Your task to perform on an android device: turn smart compose on in the gmail app Image 0: 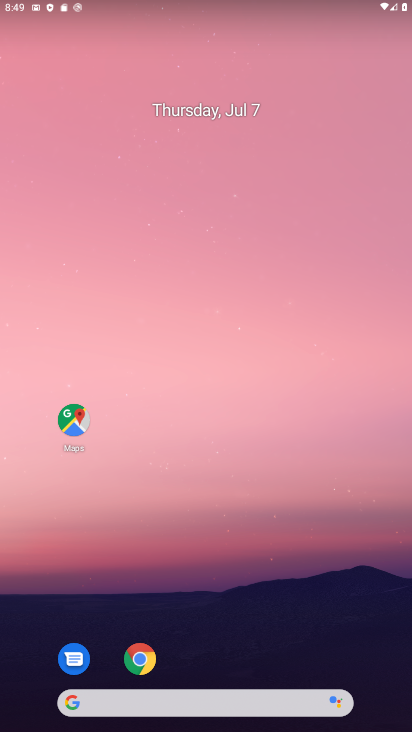
Step 0: click (138, 657)
Your task to perform on an android device: turn smart compose on in the gmail app Image 1: 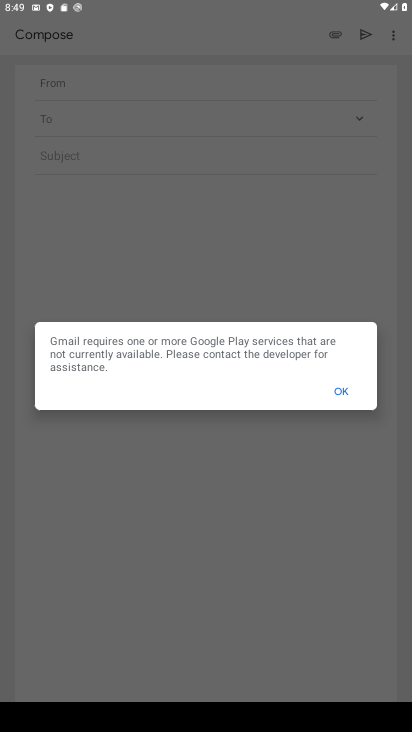
Step 1: click (337, 380)
Your task to perform on an android device: turn smart compose on in the gmail app Image 2: 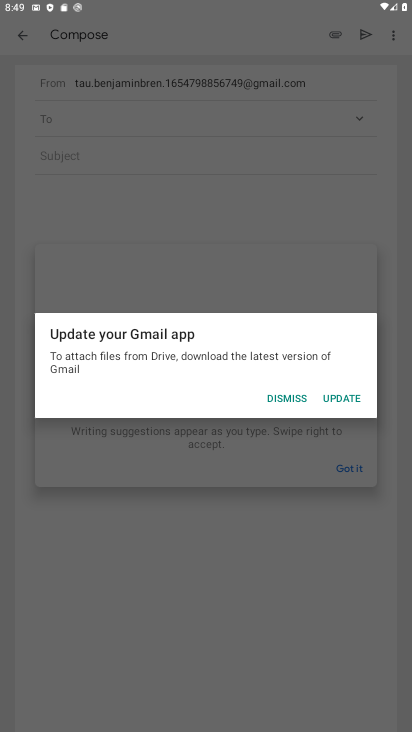
Step 2: click (291, 396)
Your task to perform on an android device: turn smart compose on in the gmail app Image 3: 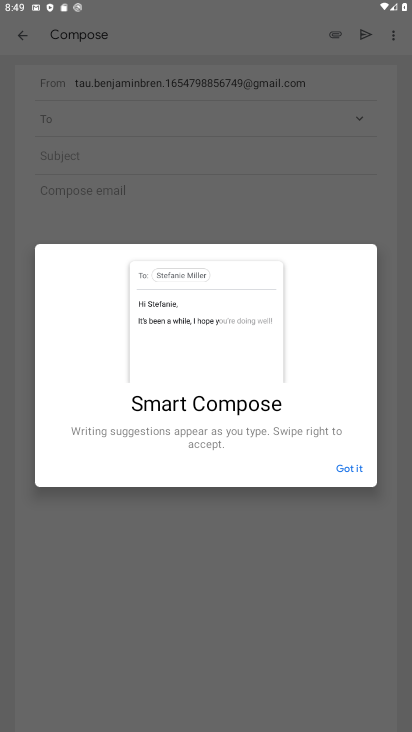
Step 3: click (349, 466)
Your task to perform on an android device: turn smart compose on in the gmail app Image 4: 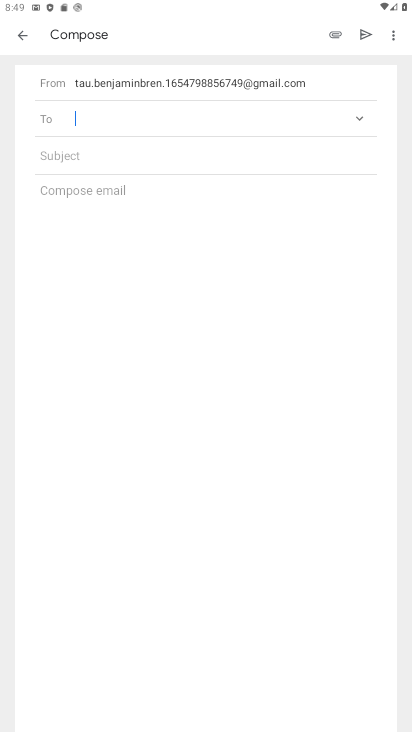
Step 4: click (20, 40)
Your task to perform on an android device: turn smart compose on in the gmail app Image 5: 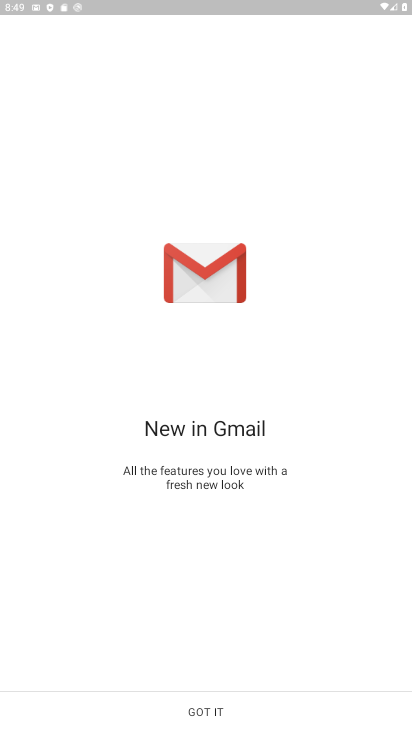
Step 5: click (278, 706)
Your task to perform on an android device: turn smart compose on in the gmail app Image 6: 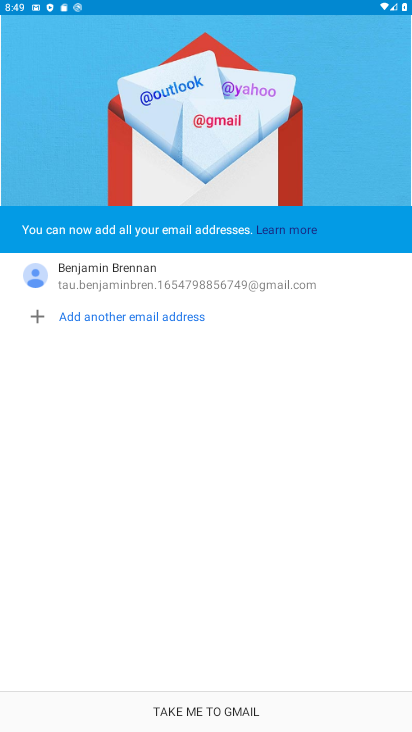
Step 6: click (248, 705)
Your task to perform on an android device: turn smart compose on in the gmail app Image 7: 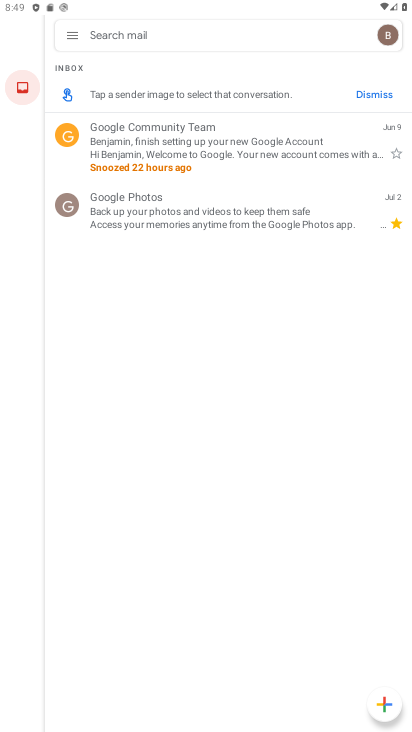
Step 7: click (68, 29)
Your task to perform on an android device: turn smart compose on in the gmail app Image 8: 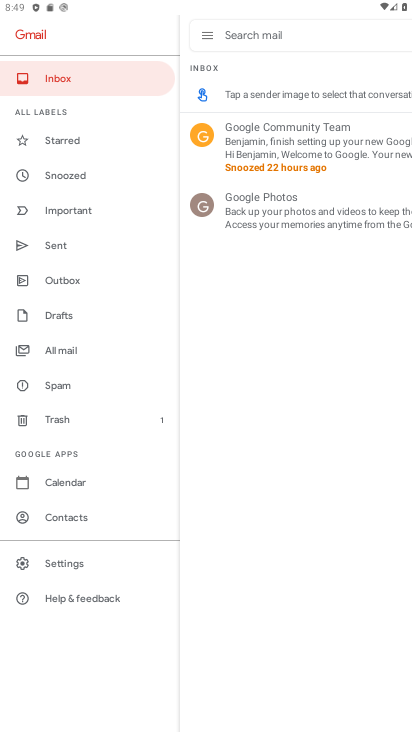
Step 8: click (76, 567)
Your task to perform on an android device: turn smart compose on in the gmail app Image 9: 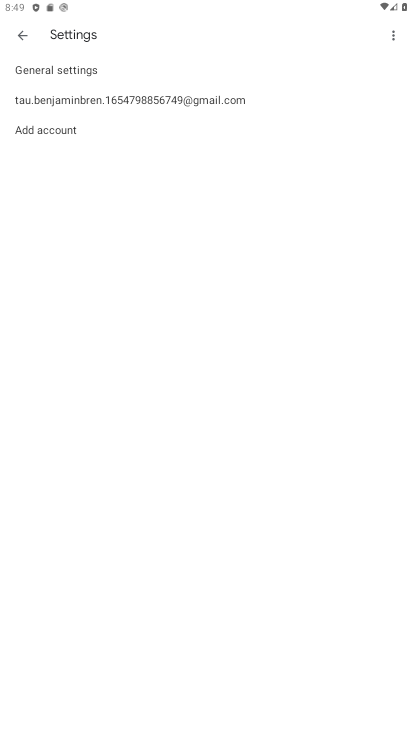
Step 9: click (98, 99)
Your task to perform on an android device: turn smart compose on in the gmail app Image 10: 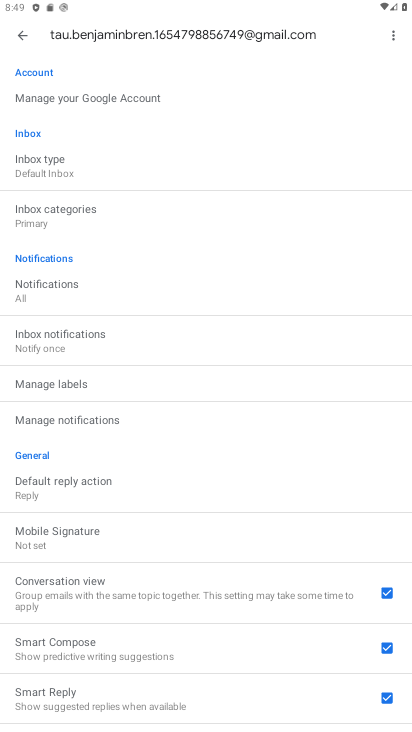
Step 10: task complete